Your task to perform on an android device: Open the web browser Image 0: 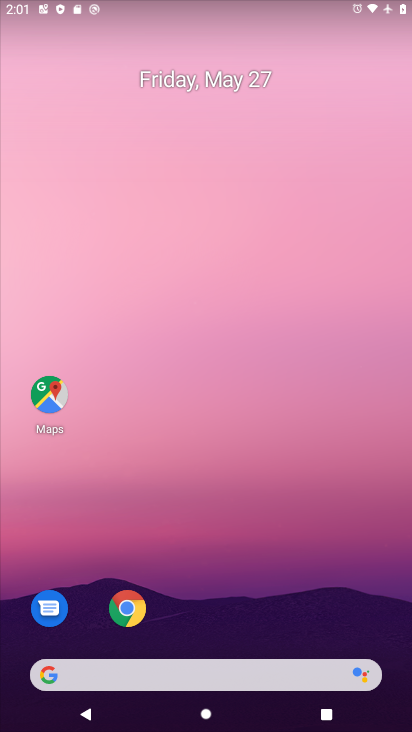
Step 0: click (126, 607)
Your task to perform on an android device: Open the web browser Image 1: 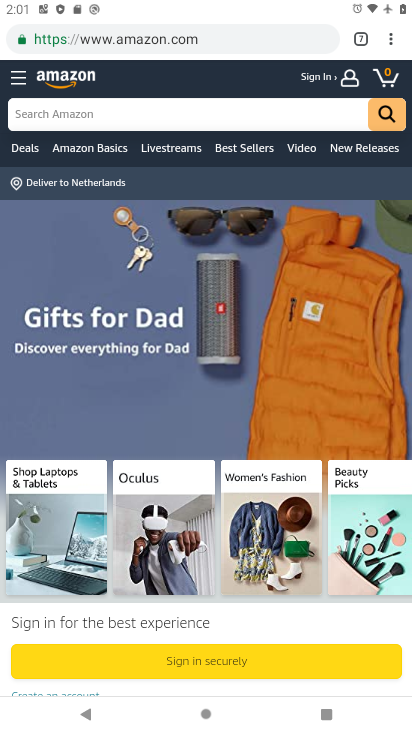
Step 1: task complete